Your task to perform on an android device: Open calendar and show me the fourth week of next month Image 0: 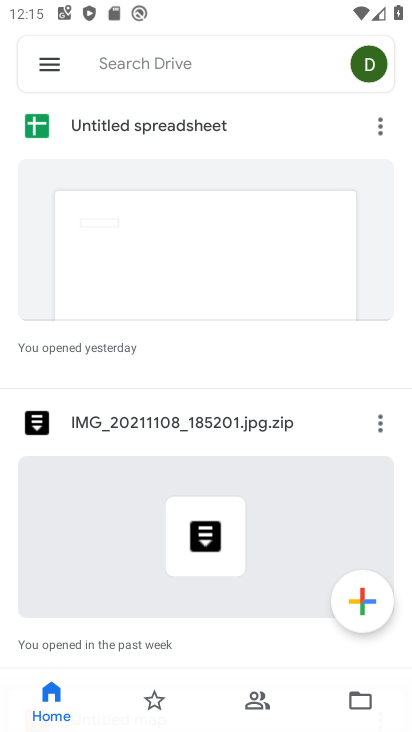
Step 0: press home button
Your task to perform on an android device: Open calendar and show me the fourth week of next month Image 1: 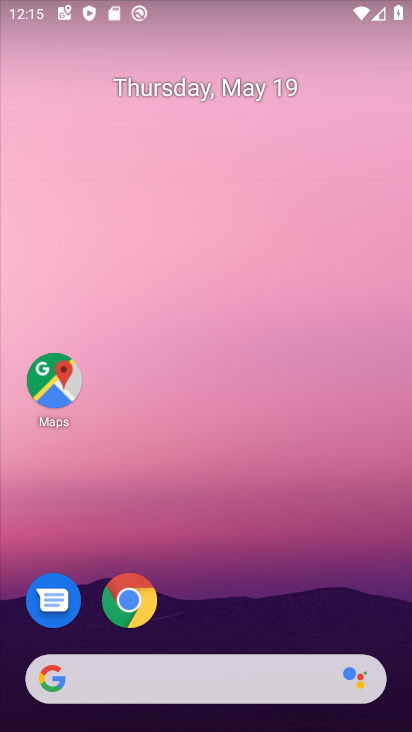
Step 1: drag from (268, 604) to (184, 21)
Your task to perform on an android device: Open calendar and show me the fourth week of next month Image 2: 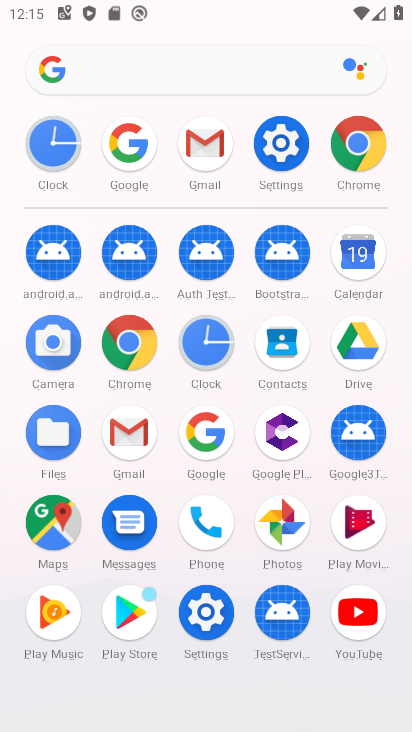
Step 2: click (358, 262)
Your task to perform on an android device: Open calendar and show me the fourth week of next month Image 3: 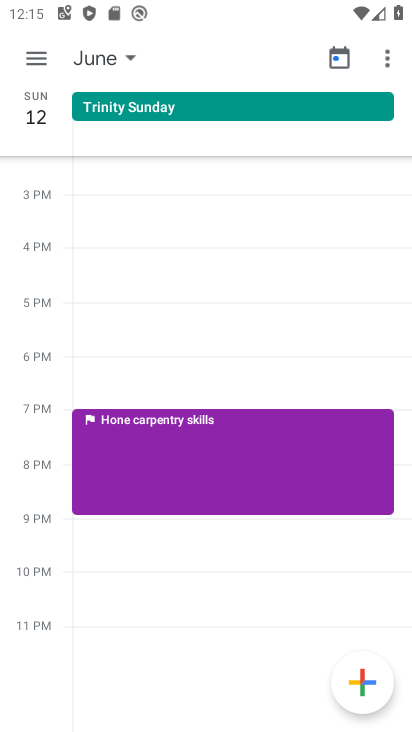
Step 3: click (112, 54)
Your task to perform on an android device: Open calendar and show me the fourth week of next month Image 4: 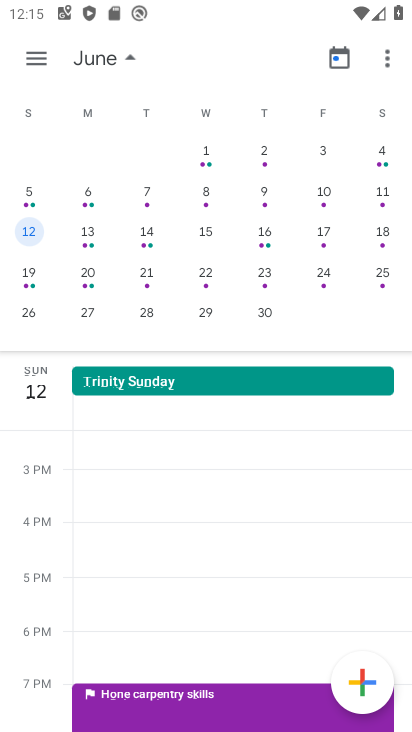
Step 4: click (32, 280)
Your task to perform on an android device: Open calendar and show me the fourth week of next month Image 5: 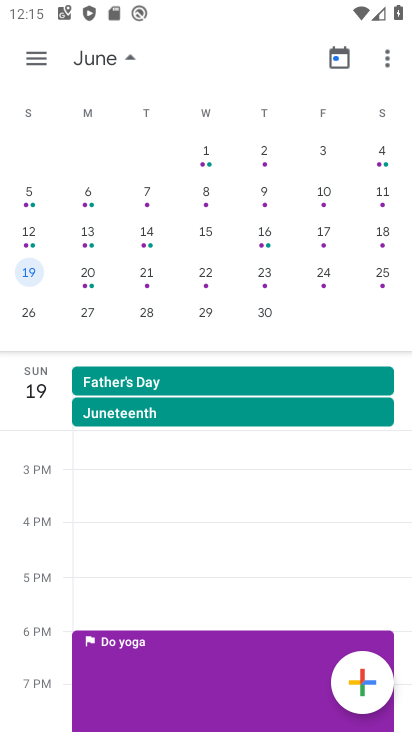
Step 5: task complete